Your task to perform on an android device: Go to notification settings Image 0: 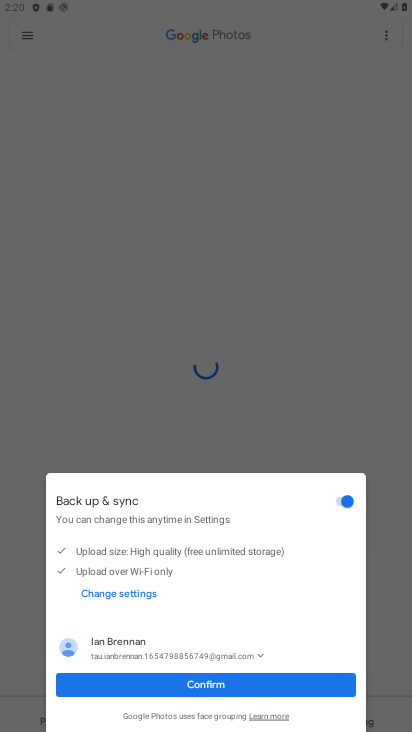
Step 0: press home button
Your task to perform on an android device: Go to notification settings Image 1: 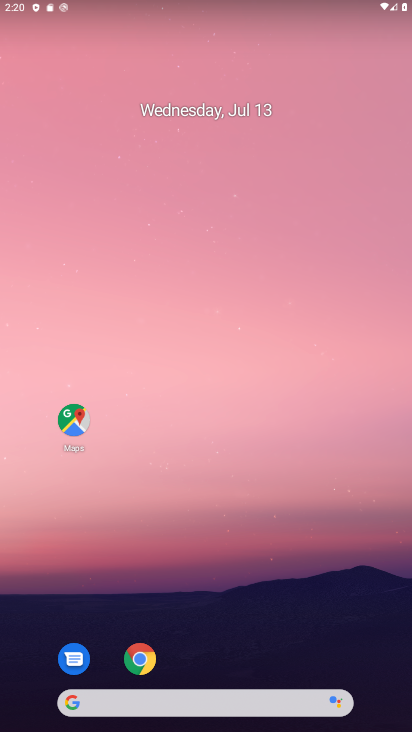
Step 1: drag from (220, 574) to (219, 177)
Your task to perform on an android device: Go to notification settings Image 2: 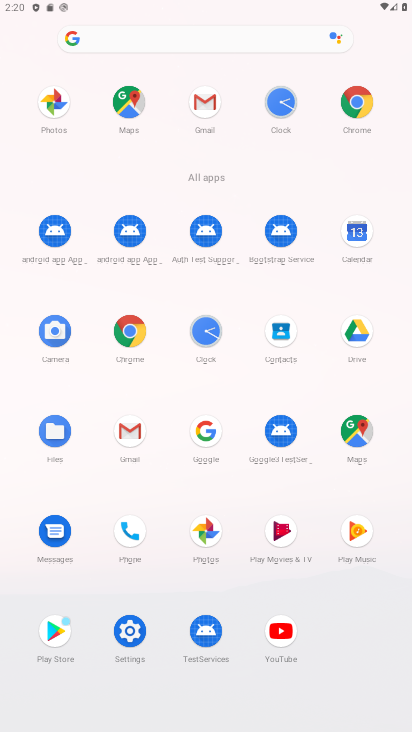
Step 2: click (130, 621)
Your task to perform on an android device: Go to notification settings Image 3: 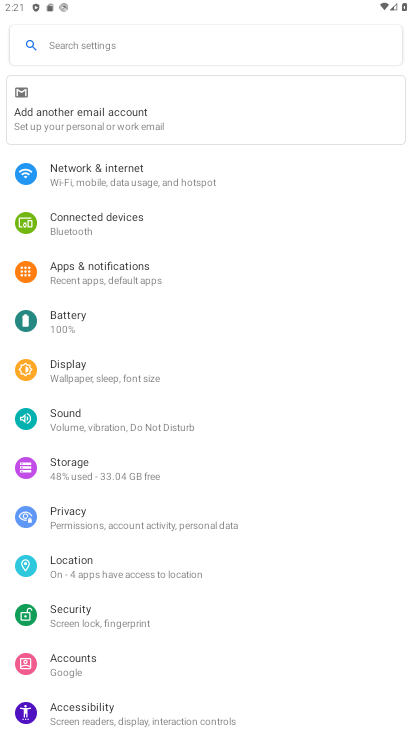
Step 3: click (139, 169)
Your task to perform on an android device: Go to notification settings Image 4: 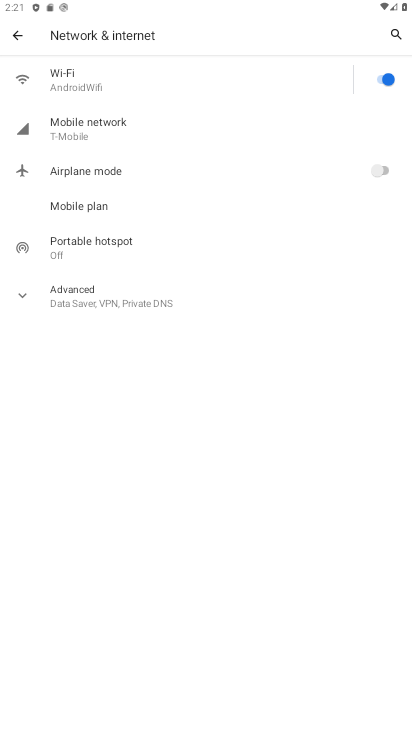
Step 4: click (18, 37)
Your task to perform on an android device: Go to notification settings Image 5: 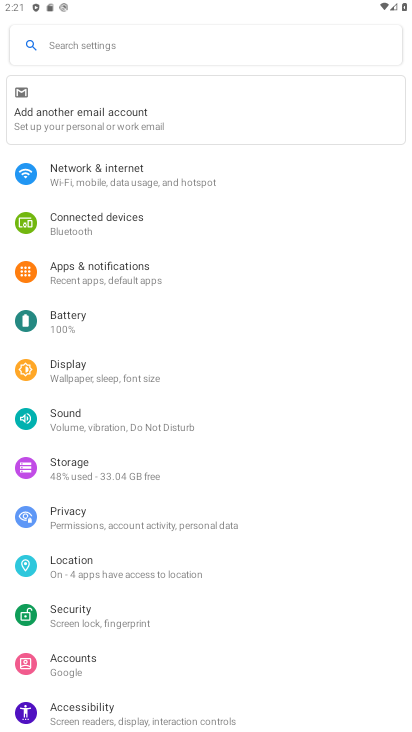
Step 5: click (110, 197)
Your task to perform on an android device: Go to notification settings Image 6: 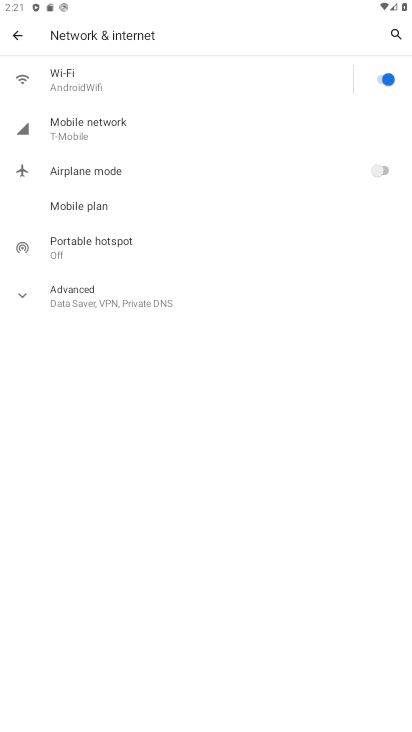
Step 6: click (21, 47)
Your task to perform on an android device: Go to notification settings Image 7: 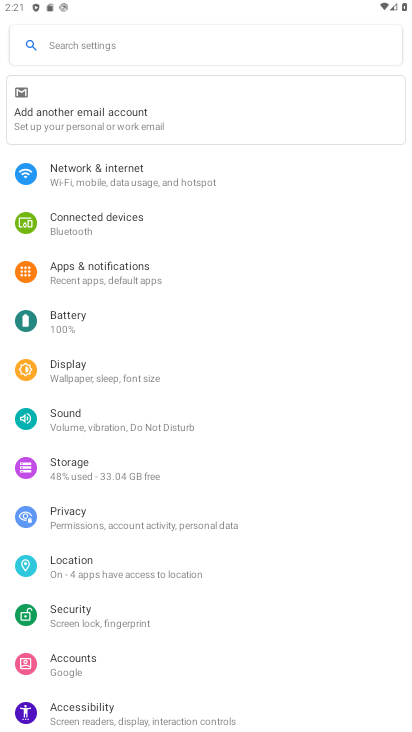
Step 7: click (105, 278)
Your task to perform on an android device: Go to notification settings Image 8: 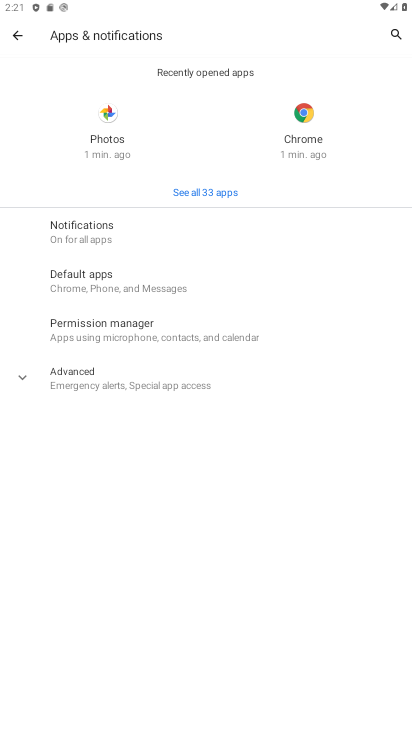
Step 8: click (139, 235)
Your task to perform on an android device: Go to notification settings Image 9: 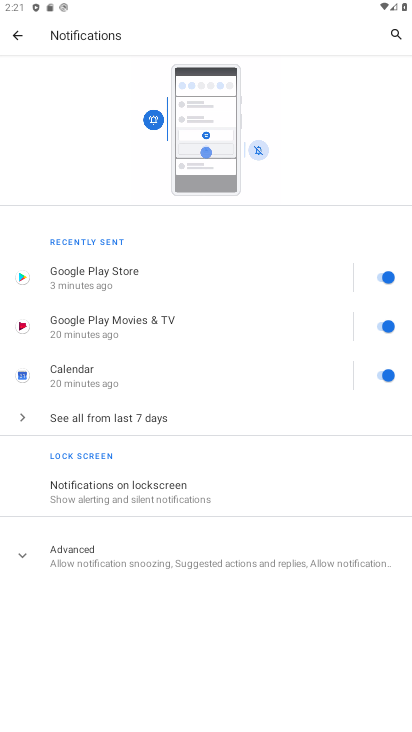
Step 9: task complete